Your task to perform on an android device: Is it going to rain this weekend? Image 0: 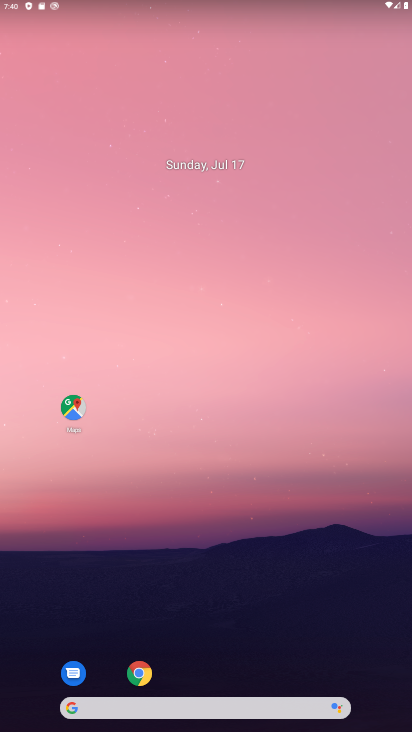
Step 0: drag from (246, 205) to (193, 6)
Your task to perform on an android device: Is it going to rain this weekend? Image 1: 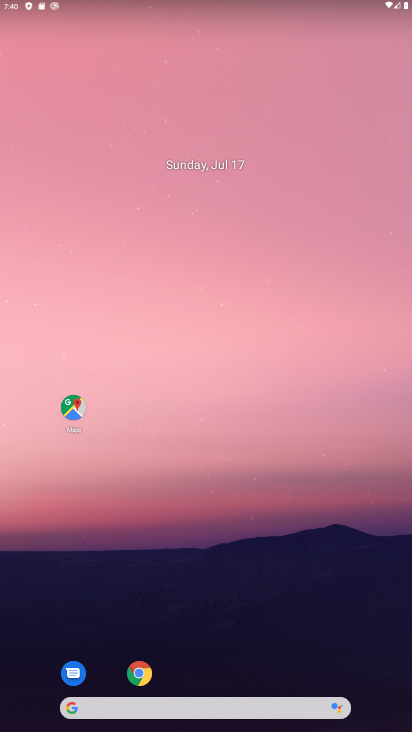
Step 1: drag from (191, 656) to (302, 2)
Your task to perform on an android device: Is it going to rain this weekend? Image 2: 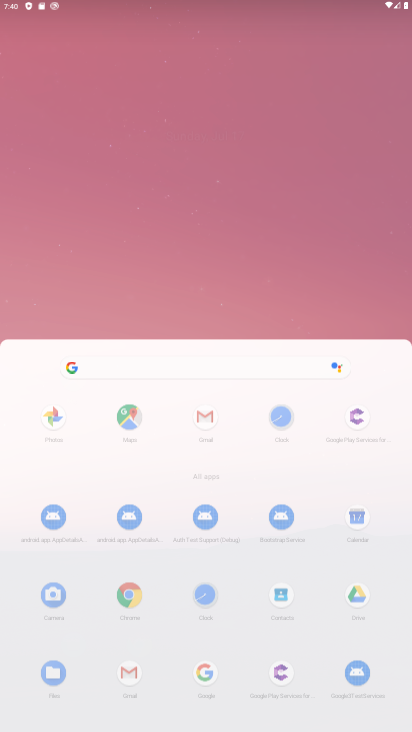
Step 2: drag from (282, 383) to (269, 5)
Your task to perform on an android device: Is it going to rain this weekend? Image 3: 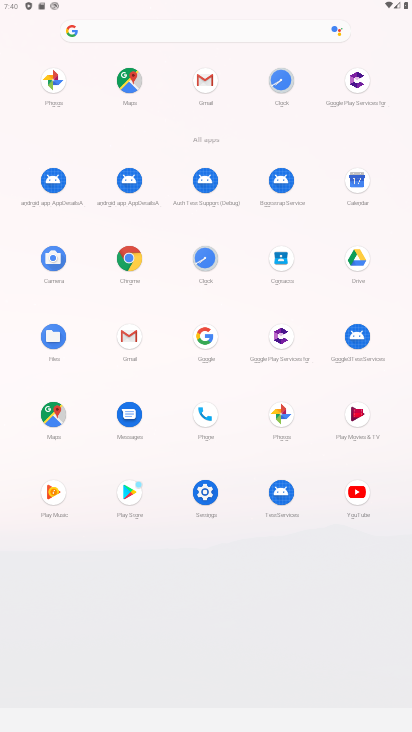
Step 3: drag from (154, 494) to (198, 155)
Your task to perform on an android device: Is it going to rain this weekend? Image 4: 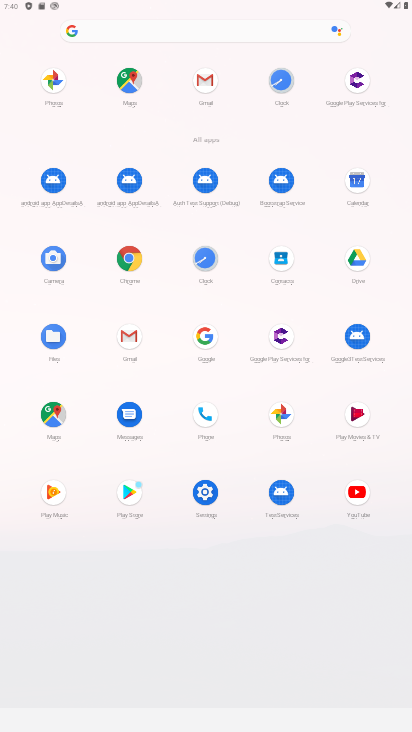
Step 4: click (128, 260)
Your task to perform on an android device: Is it going to rain this weekend? Image 5: 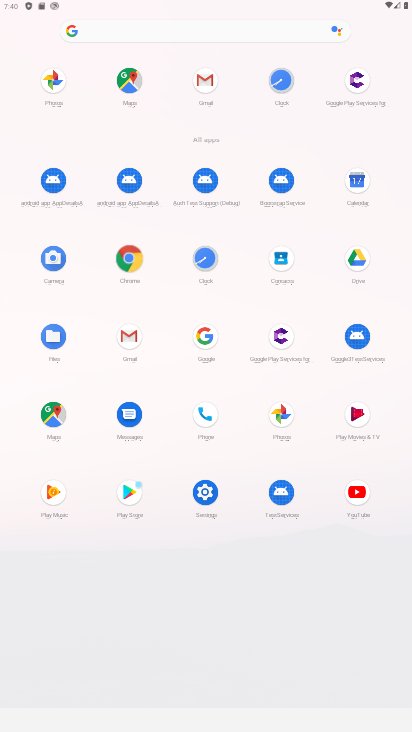
Step 5: click (128, 261)
Your task to perform on an android device: Is it going to rain this weekend? Image 6: 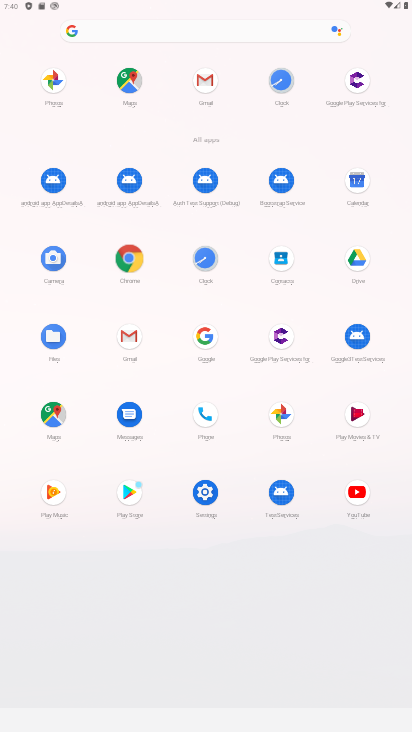
Step 6: click (131, 264)
Your task to perform on an android device: Is it going to rain this weekend? Image 7: 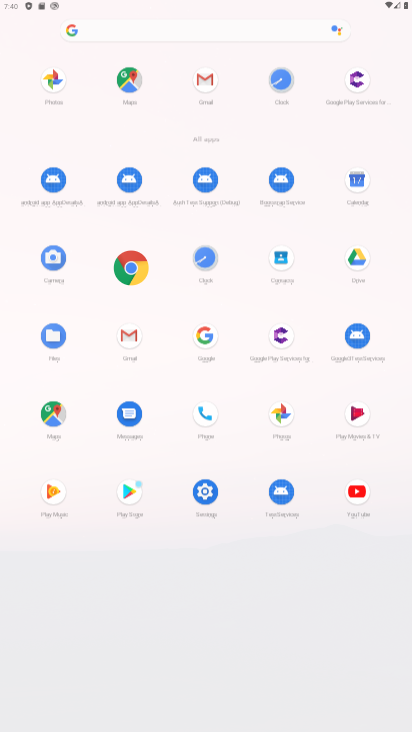
Step 7: click (131, 264)
Your task to perform on an android device: Is it going to rain this weekend? Image 8: 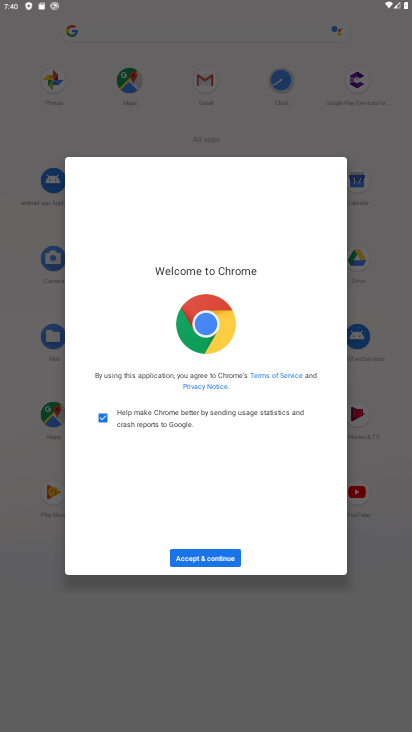
Step 8: click (203, 556)
Your task to perform on an android device: Is it going to rain this weekend? Image 9: 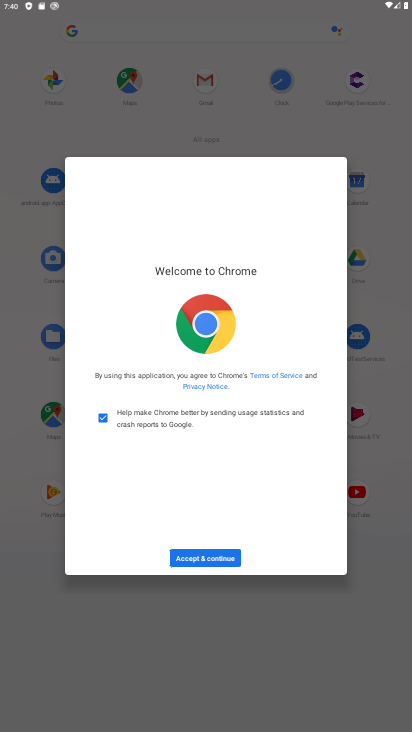
Step 9: click (213, 573)
Your task to perform on an android device: Is it going to rain this weekend? Image 10: 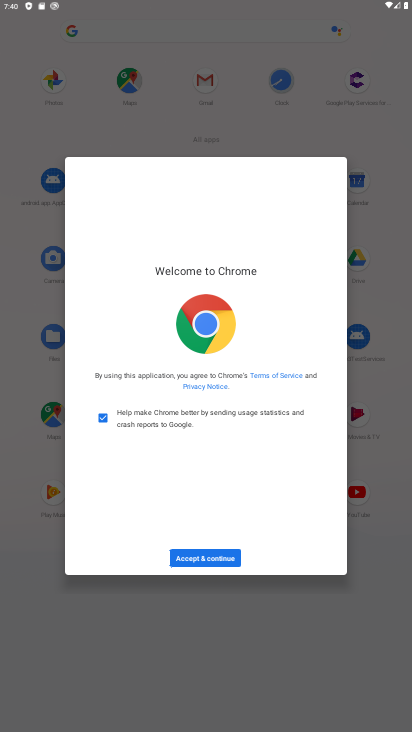
Step 10: click (216, 565)
Your task to perform on an android device: Is it going to rain this weekend? Image 11: 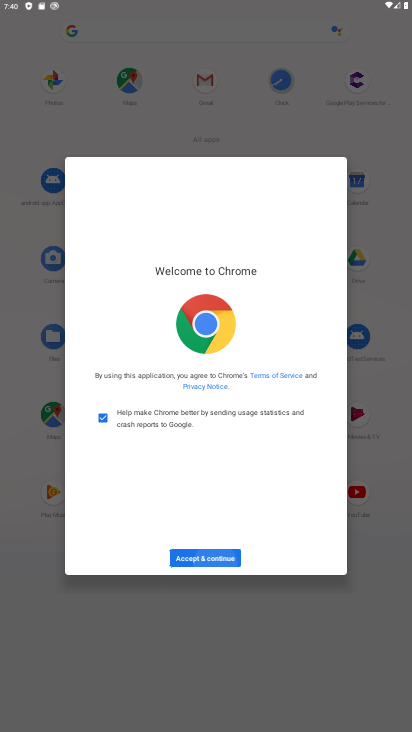
Step 11: click (214, 560)
Your task to perform on an android device: Is it going to rain this weekend? Image 12: 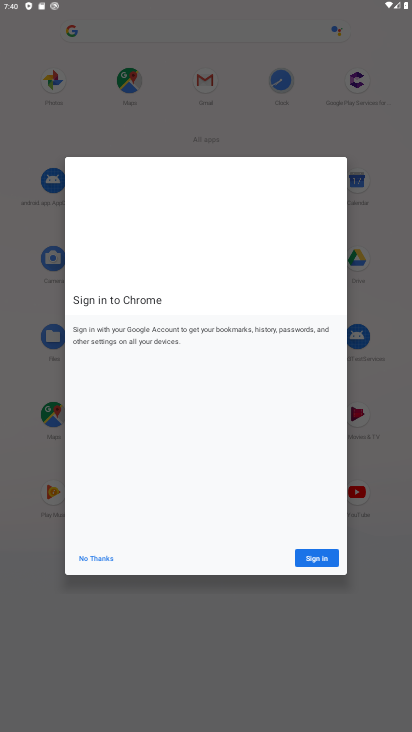
Step 12: click (216, 559)
Your task to perform on an android device: Is it going to rain this weekend? Image 13: 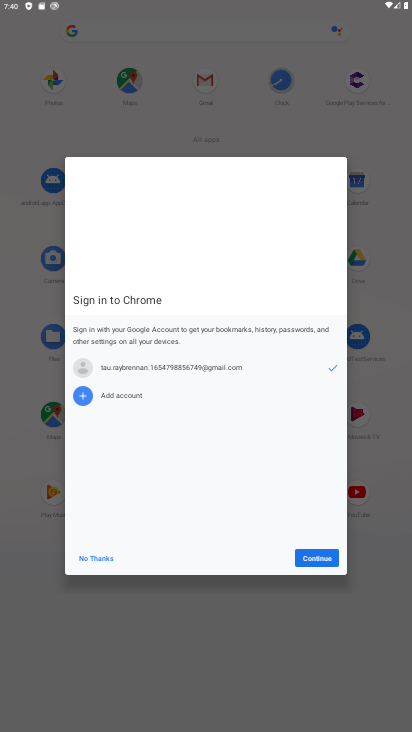
Step 13: click (217, 558)
Your task to perform on an android device: Is it going to rain this weekend? Image 14: 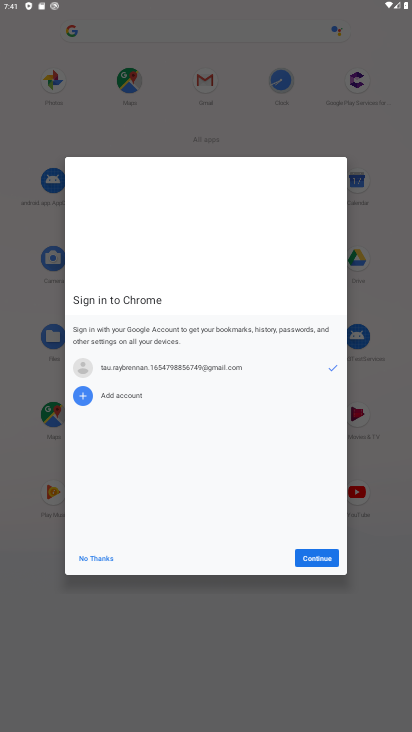
Step 14: click (325, 563)
Your task to perform on an android device: Is it going to rain this weekend? Image 15: 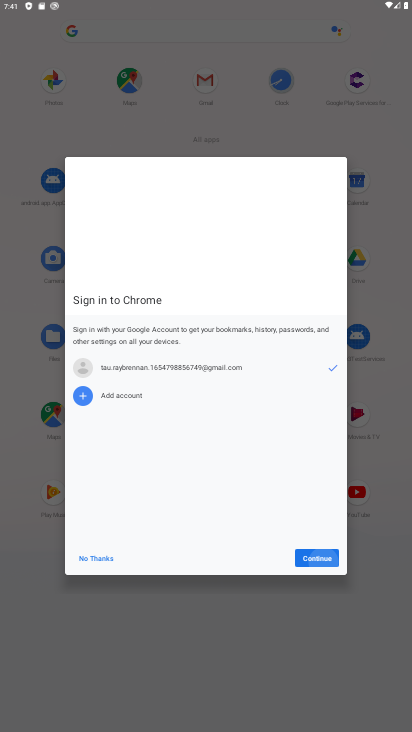
Step 15: click (325, 563)
Your task to perform on an android device: Is it going to rain this weekend? Image 16: 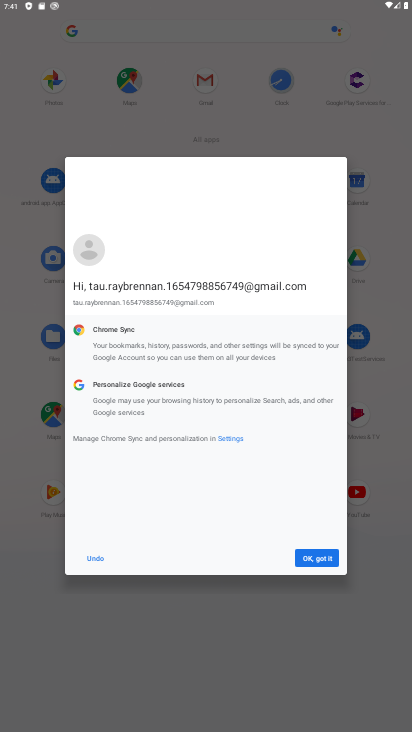
Step 16: click (325, 563)
Your task to perform on an android device: Is it going to rain this weekend? Image 17: 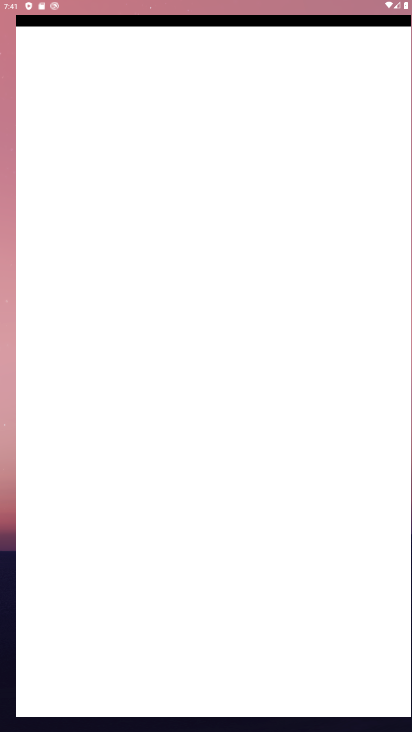
Step 17: click (327, 553)
Your task to perform on an android device: Is it going to rain this weekend? Image 18: 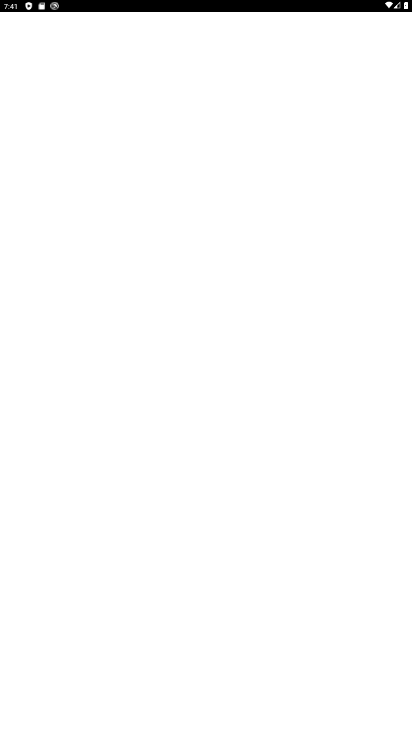
Step 18: click (327, 552)
Your task to perform on an android device: Is it going to rain this weekend? Image 19: 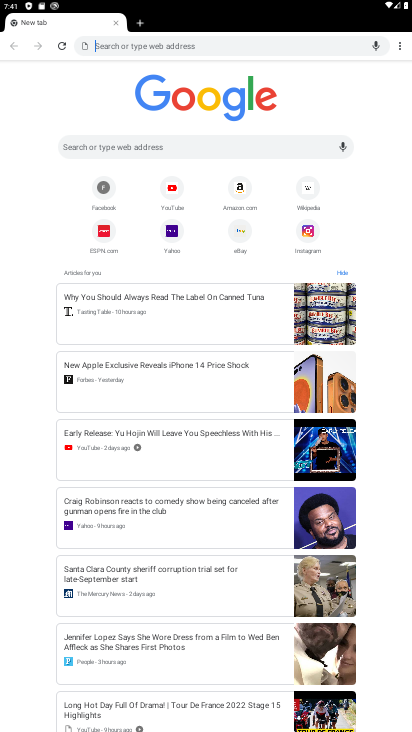
Step 19: task complete